Your task to perform on an android device: What's the weather today? Image 0: 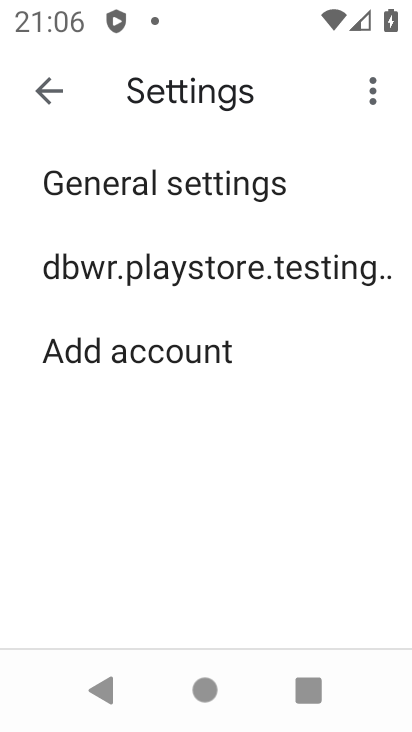
Step 0: press home button
Your task to perform on an android device: What's the weather today? Image 1: 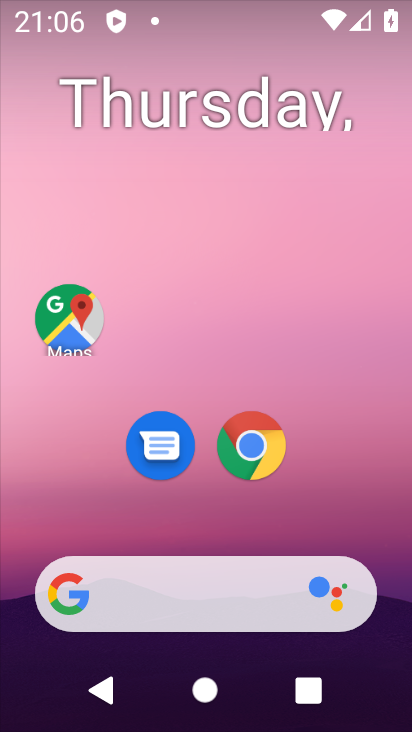
Step 1: click (216, 612)
Your task to perform on an android device: What's the weather today? Image 2: 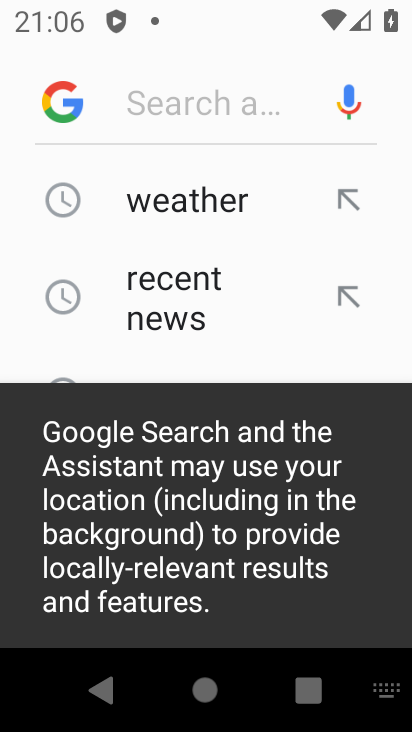
Step 2: click (194, 188)
Your task to perform on an android device: What's the weather today? Image 3: 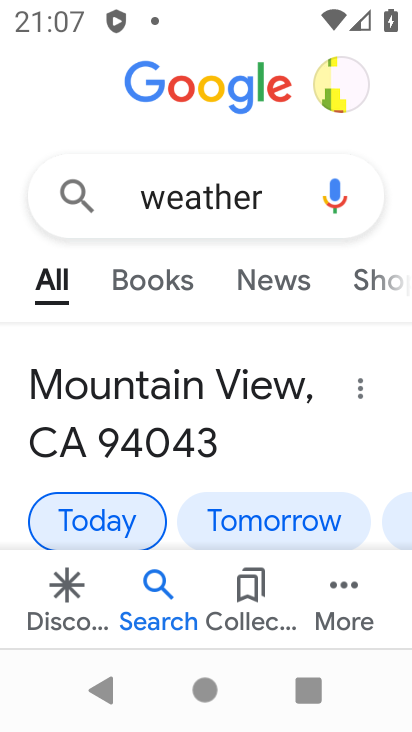
Step 3: click (104, 532)
Your task to perform on an android device: What's the weather today? Image 4: 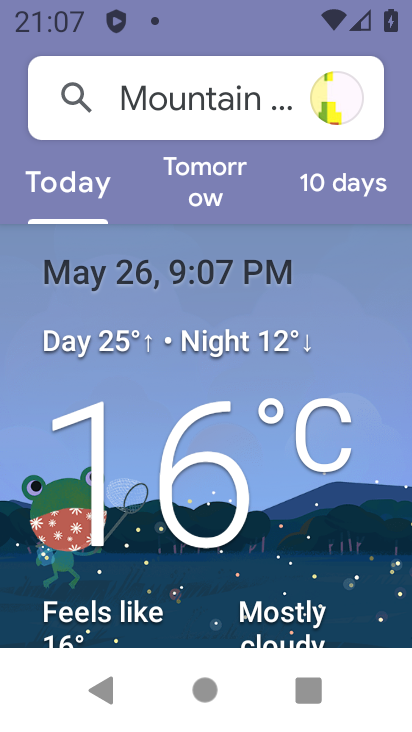
Step 4: task complete